Your task to perform on an android device: Find coffee shops on Maps Image 0: 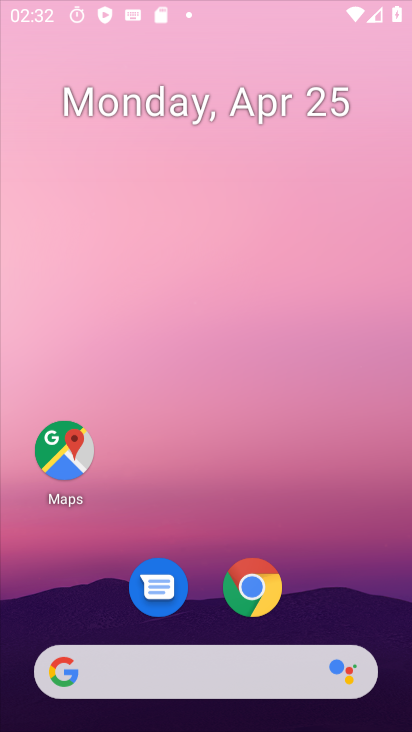
Step 0: click (346, 161)
Your task to perform on an android device: Find coffee shops on Maps Image 1: 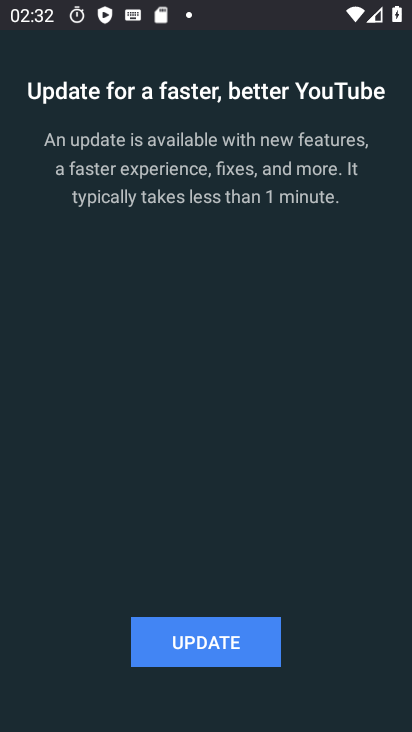
Step 1: press home button
Your task to perform on an android device: Find coffee shops on Maps Image 2: 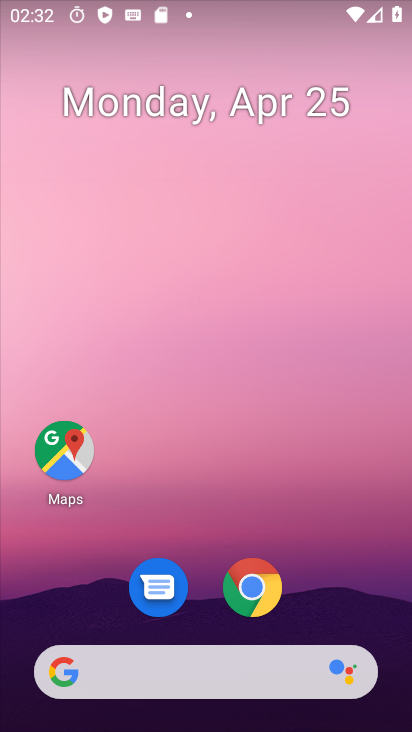
Step 2: drag from (287, 425) to (222, 95)
Your task to perform on an android device: Find coffee shops on Maps Image 3: 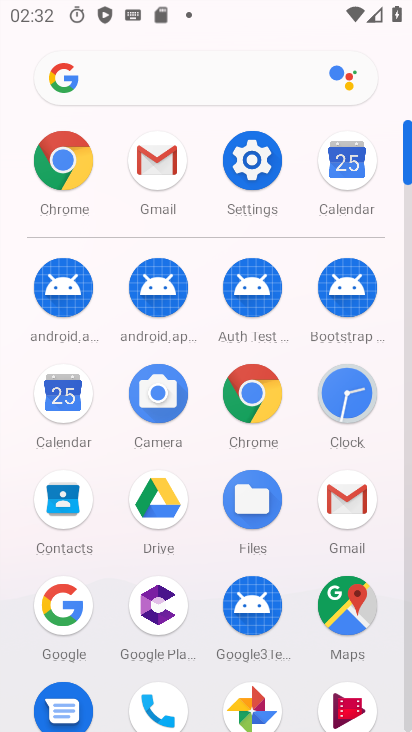
Step 3: click (358, 598)
Your task to perform on an android device: Find coffee shops on Maps Image 4: 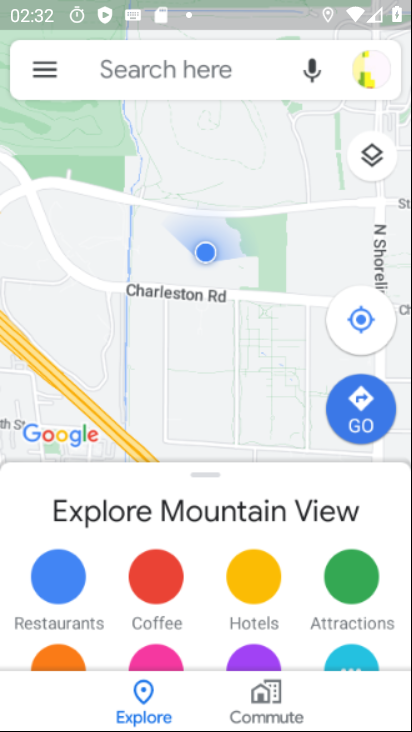
Step 4: click (220, 77)
Your task to perform on an android device: Find coffee shops on Maps Image 5: 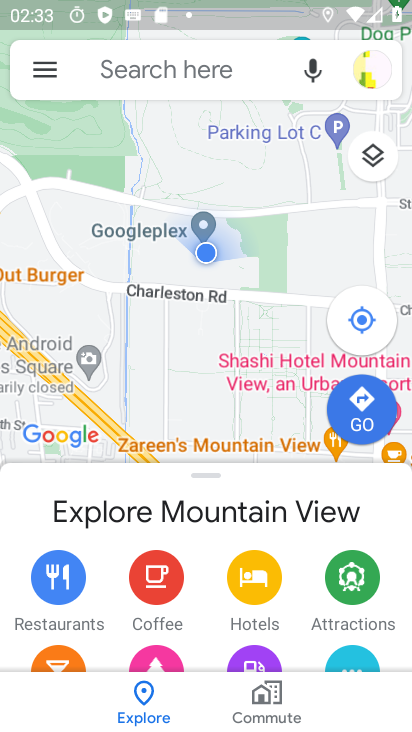
Step 5: click (117, 63)
Your task to perform on an android device: Find coffee shops on Maps Image 6: 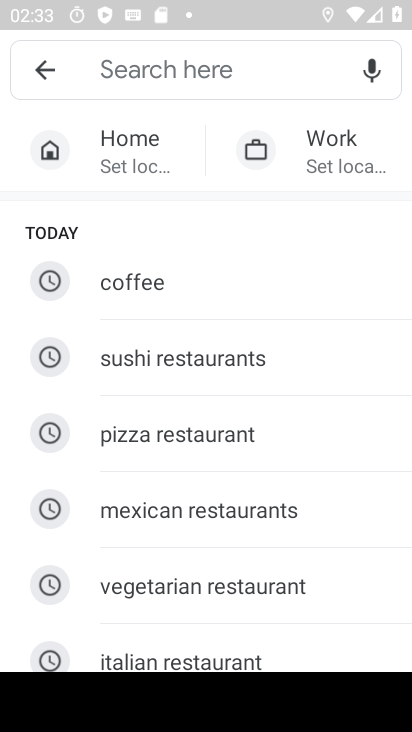
Step 6: type "coffee shops"
Your task to perform on an android device: Find coffee shops on Maps Image 7: 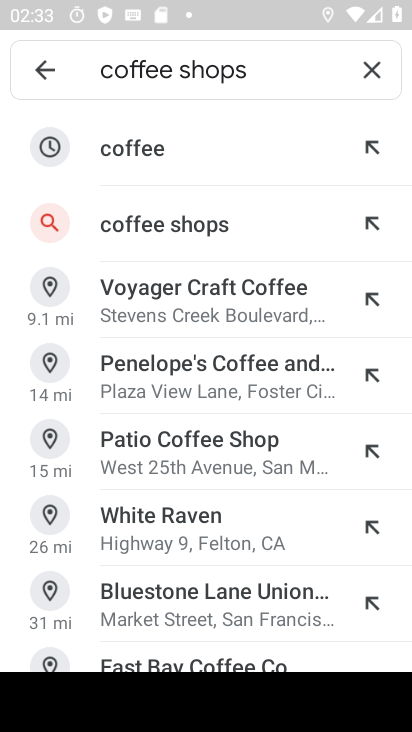
Step 7: click (223, 221)
Your task to perform on an android device: Find coffee shops on Maps Image 8: 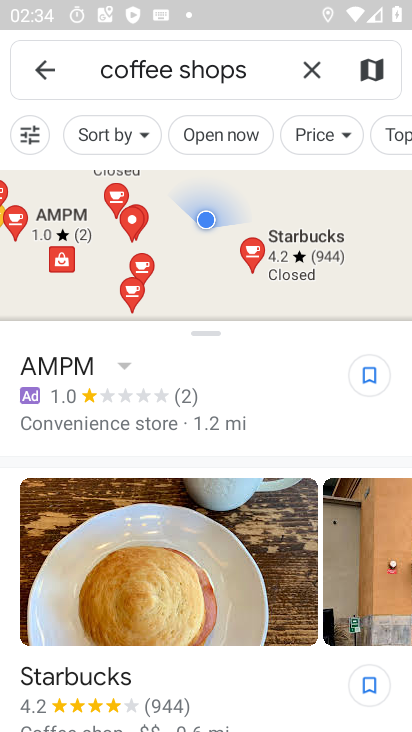
Step 8: task complete